Your task to perform on an android device: change notification settings in the gmail app Image 0: 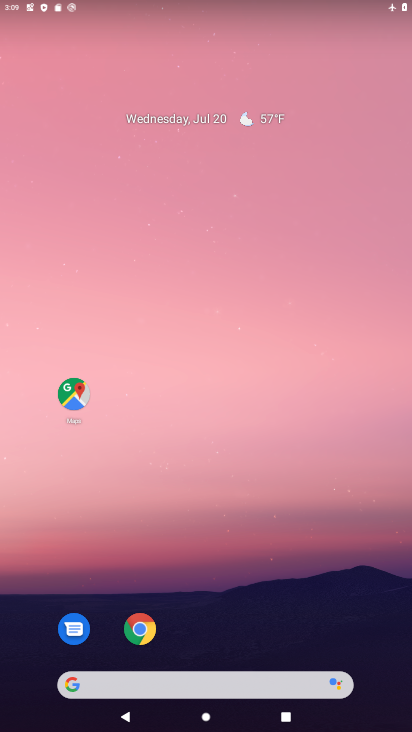
Step 0: drag from (214, 654) to (222, 118)
Your task to perform on an android device: change notification settings in the gmail app Image 1: 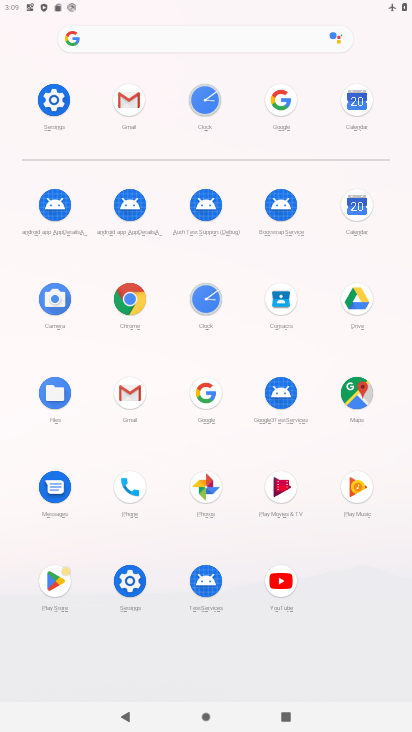
Step 1: click (129, 91)
Your task to perform on an android device: change notification settings in the gmail app Image 2: 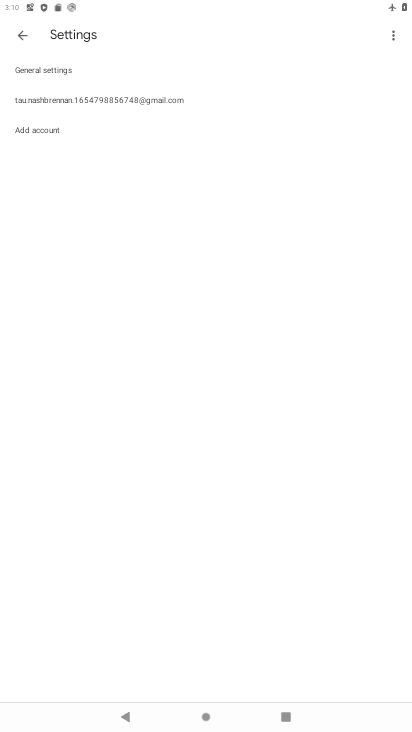
Step 2: click (109, 103)
Your task to perform on an android device: change notification settings in the gmail app Image 3: 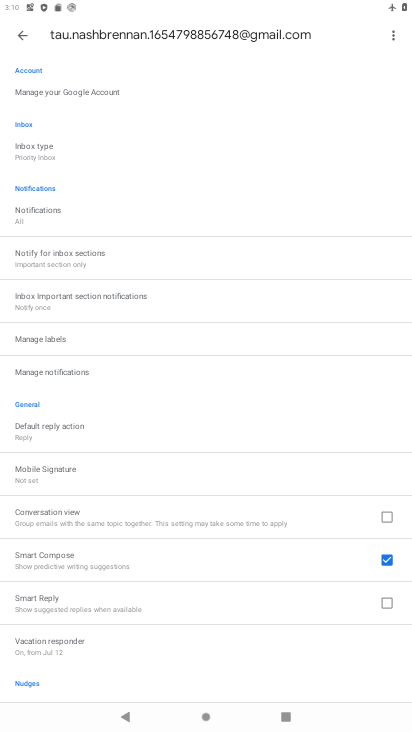
Step 3: click (40, 374)
Your task to perform on an android device: change notification settings in the gmail app Image 4: 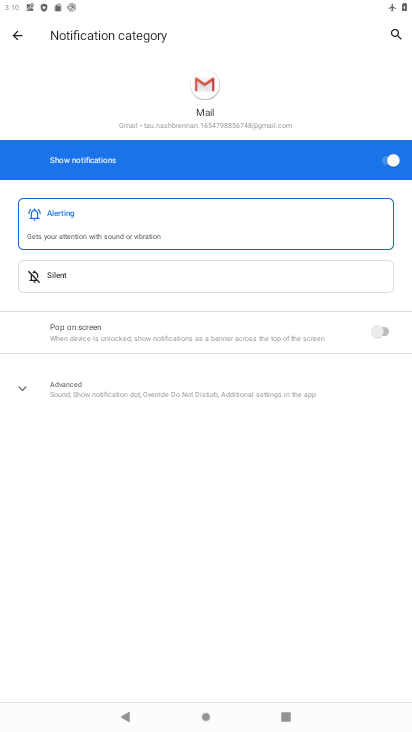
Step 4: click (388, 158)
Your task to perform on an android device: change notification settings in the gmail app Image 5: 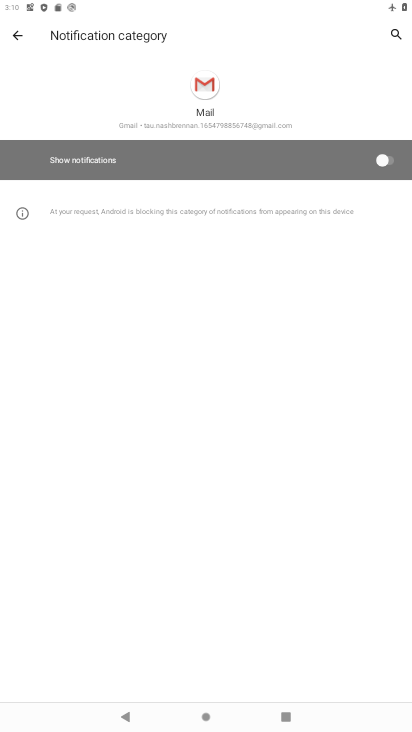
Step 5: task complete